Your task to perform on an android device: allow cookies in the chrome app Image 0: 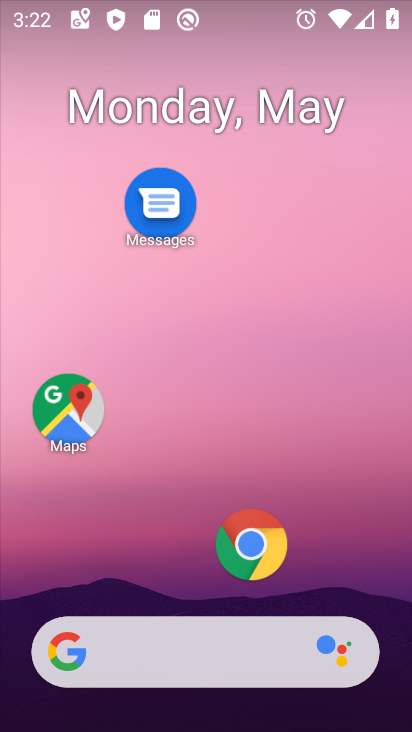
Step 0: click (267, 520)
Your task to perform on an android device: allow cookies in the chrome app Image 1: 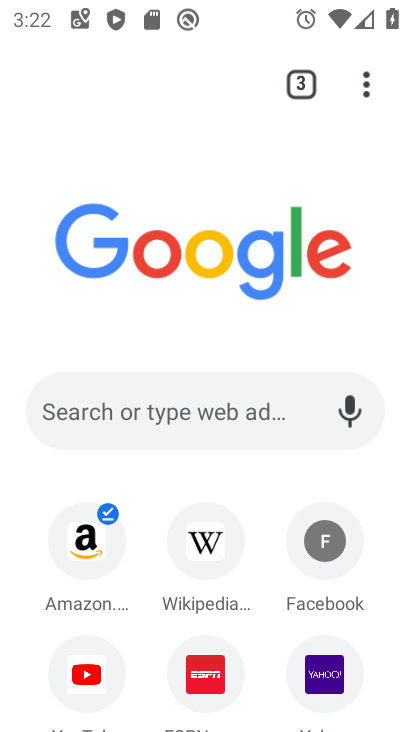
Step 1: click (357, 83)
Your task to perform on an android device: allow cookies in the chrome app Image 2: 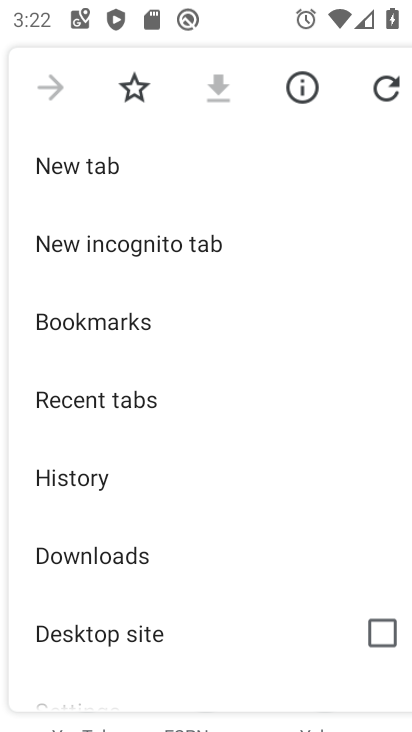
Step 2: drag from (220, 526) to (235, 295)
Your task to perform on an android device: allow cookies in the chrome app Image 3: 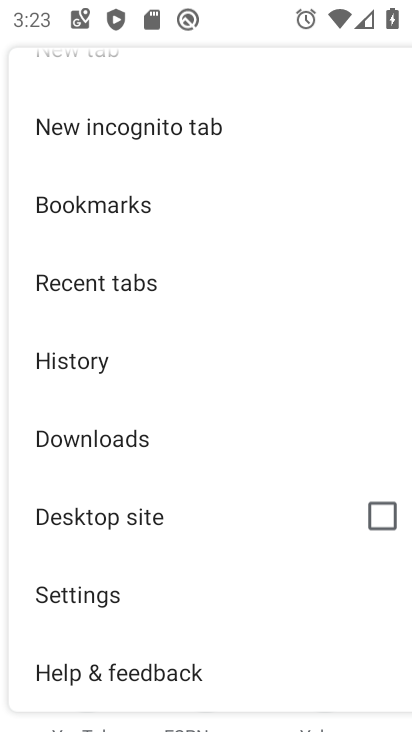
Step 3: drag from (134, 591) to (160, 335)
Your task to perform on an android device: allow cookies in the chrome app Image 4: 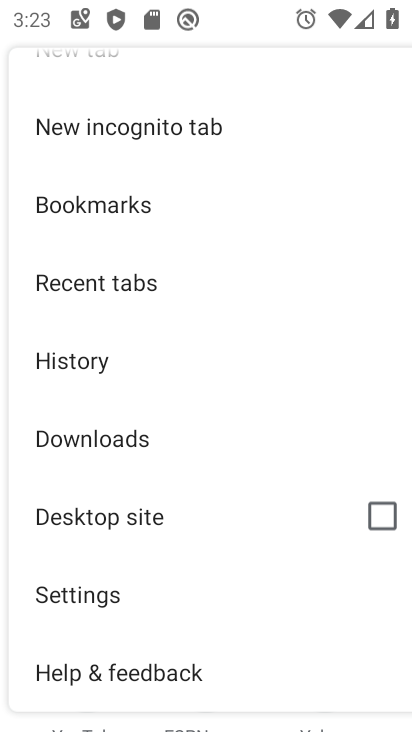
Step 4: drag from (160, 577) to (145, 370)
Your task to perform on an android device: allow cookies in the chrome app Image 5: 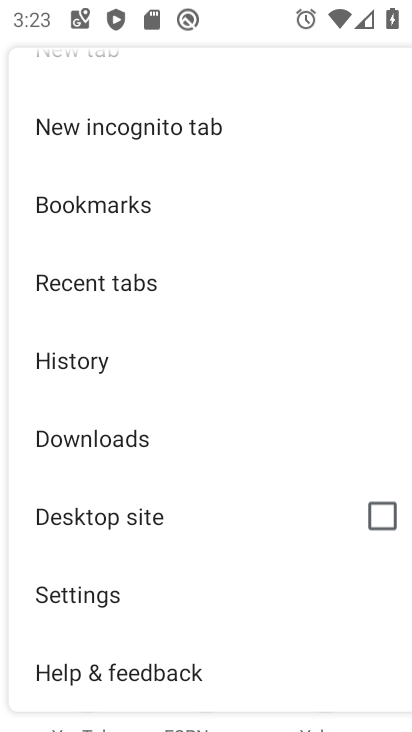
Step 5: click (114, 590)
Your task to perform on an android device: allow cookies in the chrome app Image 6: 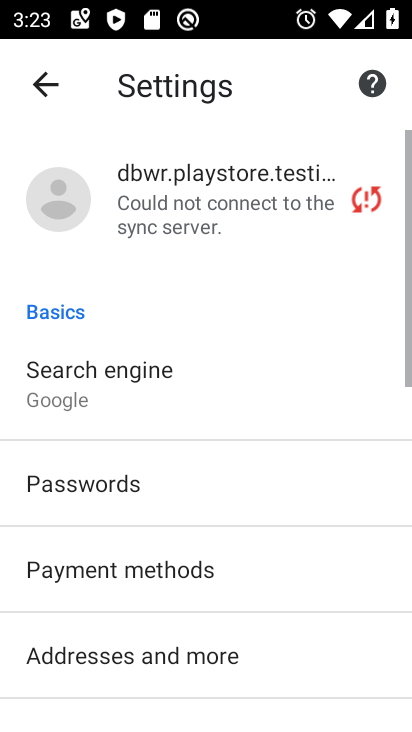
Step 6: drag from (116, 597) to (118, 262)
Your task to perform on an android device: allow cookies in the chrome app Image 7: 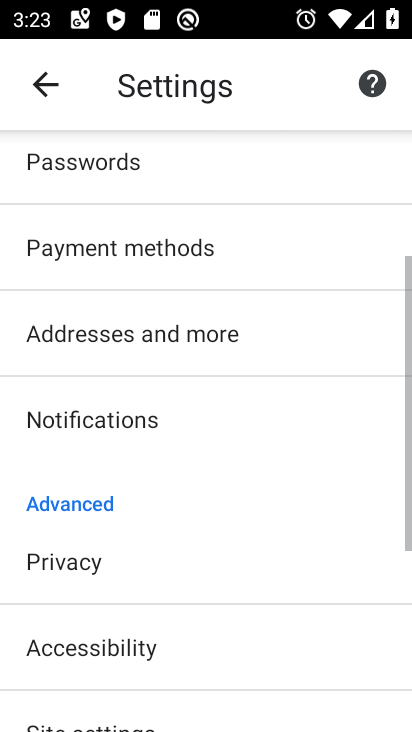
Step 7: drag from (127, 534) to (123, 336)
Your task to perform on an android device: allow cookies in the chrome app Image 8: 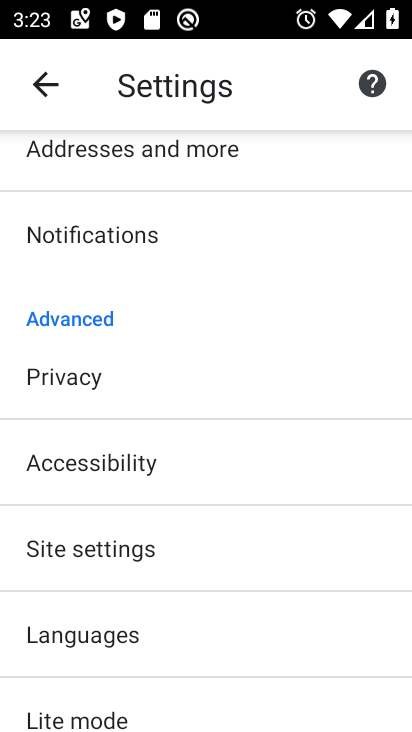
Step 8: click (145, 555)
Your task to perform on an android device: allow cookies in the chrome app Image 9: 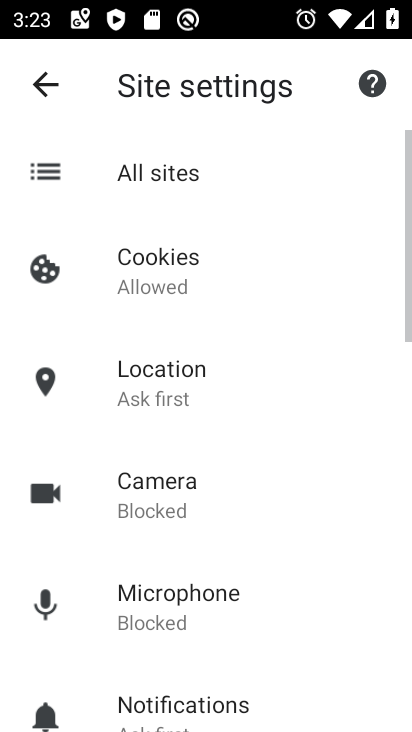
Step 9: click (191, 286)
Your task to perform on an android device: allow cookies in the chrome app Image 10: 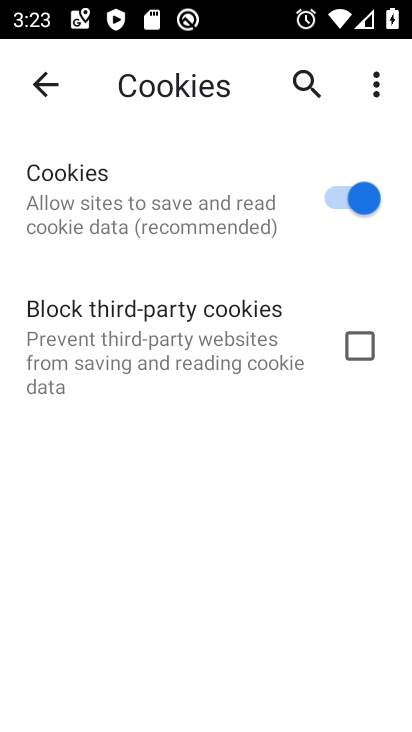
Step 10: task complete